Your task to perform on an android device: change keyboard looks Image 0: 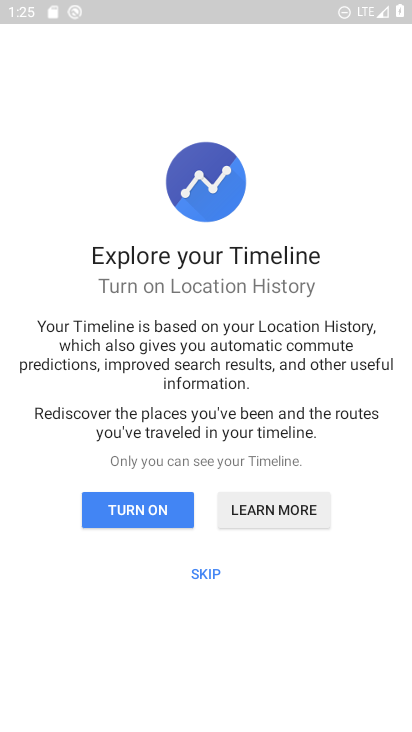
Step 0: press home button
Your task to perform on an android device: change keyboard looks Image 1: 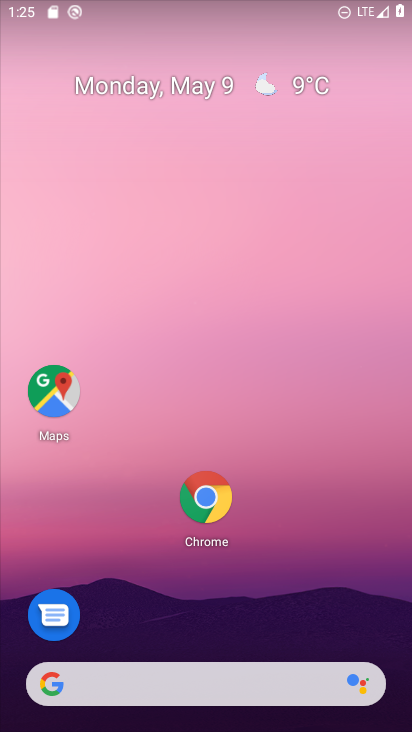
Step 1: drag from (320, 589) to (265, 70)
Your task to perform on an android device: change keyboard looks Image 2: 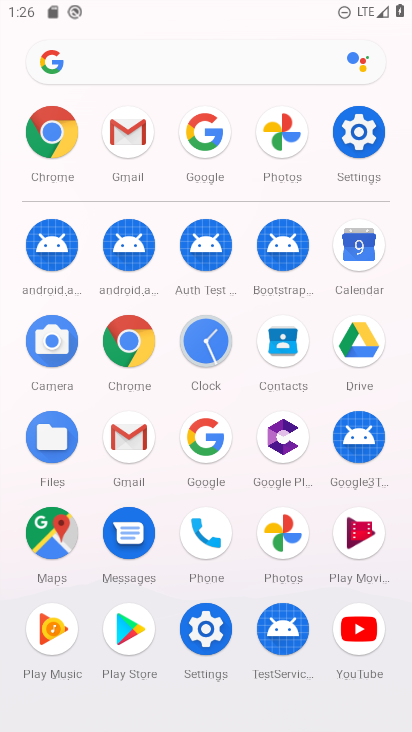
Step 2: click (352, 142)
Your task to perform on an android device: change keyboard looks Image 3: 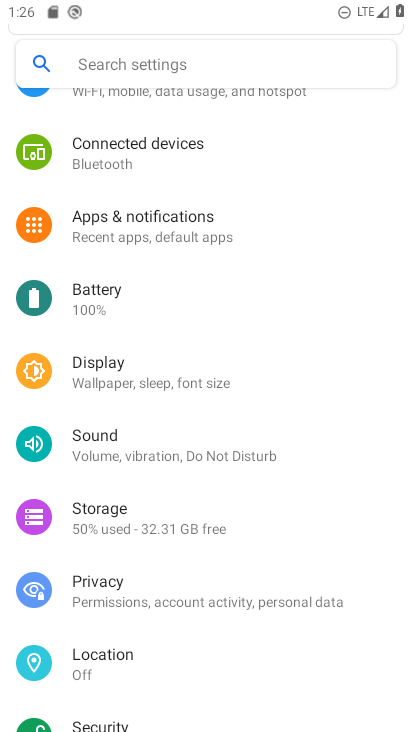
Step 3: drag from (161, 618) to (243, 42)
Your task to perform on an android device: change keyboard looks Image 4: 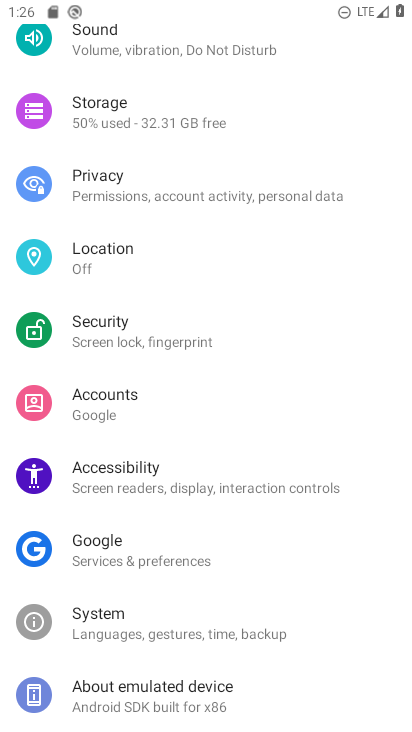
Step 4: click (161, 634)
Your task to perform on an android device: change keyboard looks Image 5: 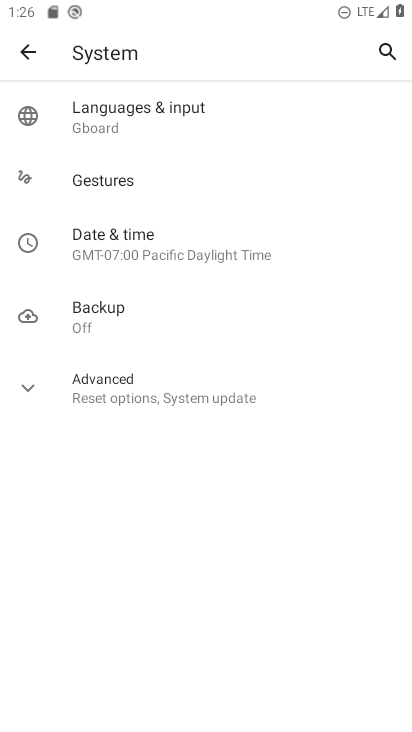
Step 5: click (112, 119)
Your task to perform on an android device: change keyboard looks Image 6: 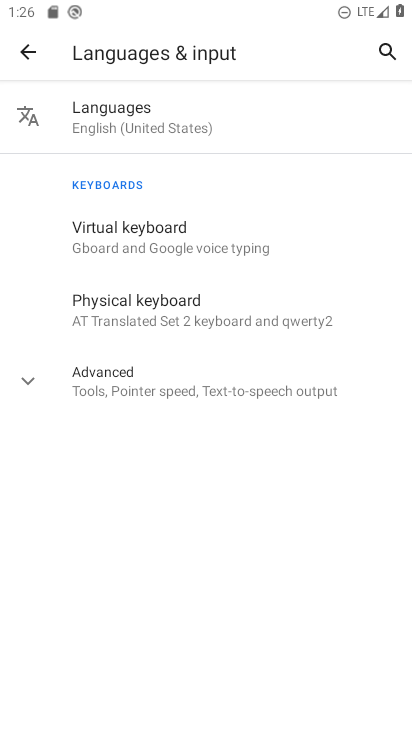
Step 6: click (154, 226)
Your task to perform on an android device: change keyboard looks Image 7: 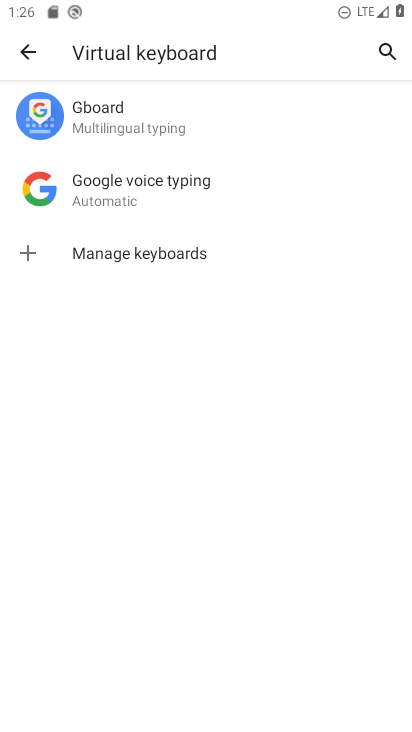
Step 7: click (141, 146)
Your task to perform on an android device: change keyboard looks Image 8: 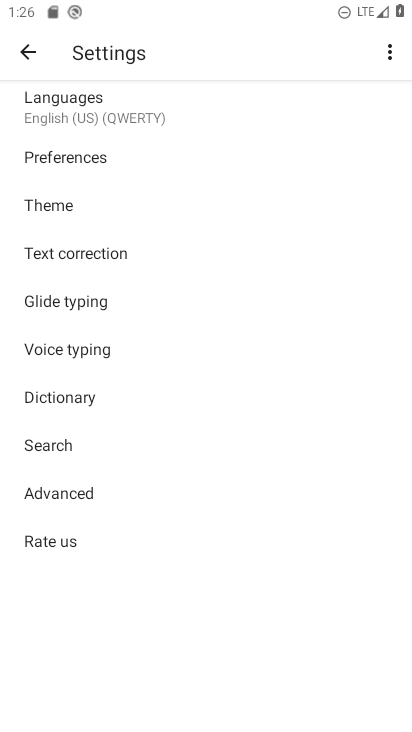
Step 8: click (48, 210)
Your task to perform on an android device: change keyboard looks Image 9: 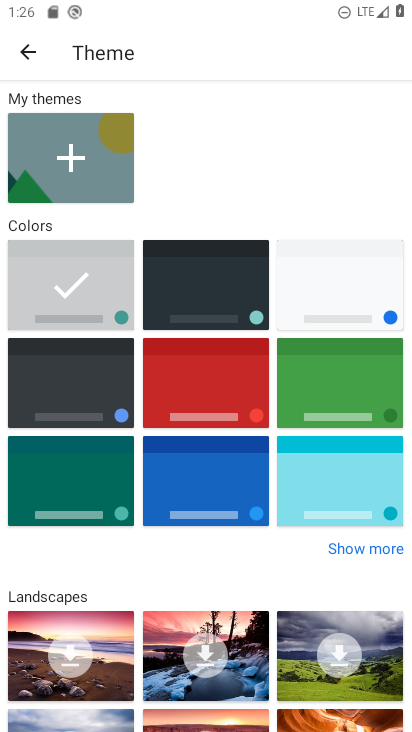
Step 9: click (315, 275)
Your task to perform on an android device: change keyboard looks Image 10: 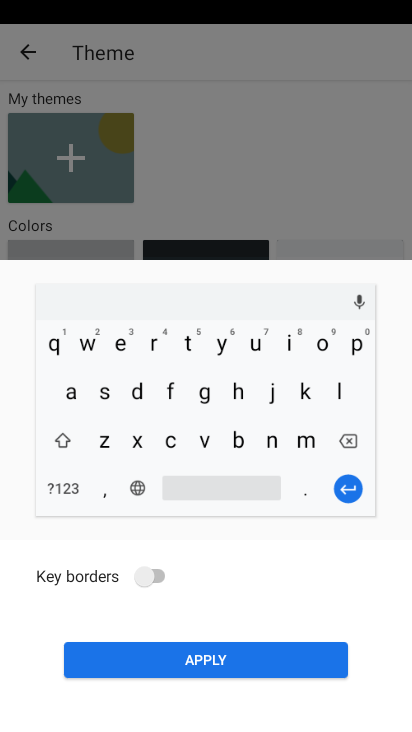
Step 10: click (269, 662)
Your task to perform on an android device: change keyboard looks Image 11: 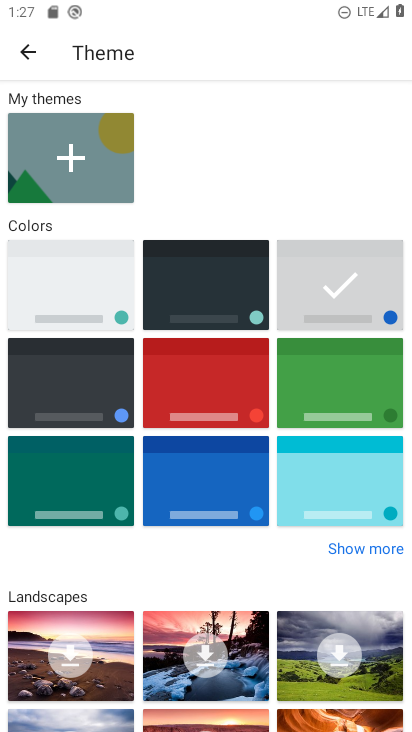
Step 11: task complete